Your task to perform on an android device: turn on the 24-hour format for clock Image 0: 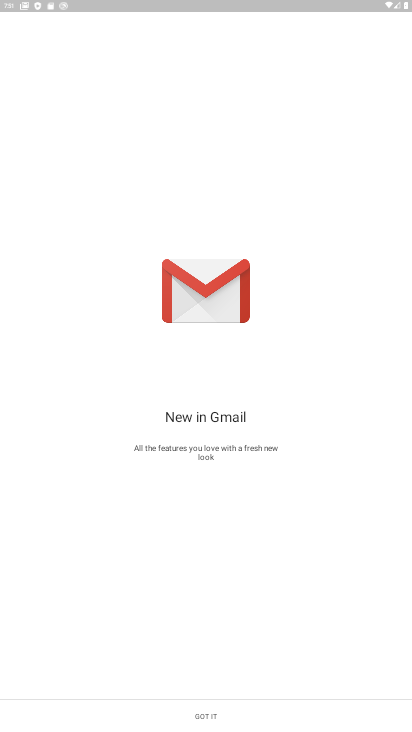
Step 0: press back button
Your task to perform on an android device: turn on the 24-hour format for clock Image 1: 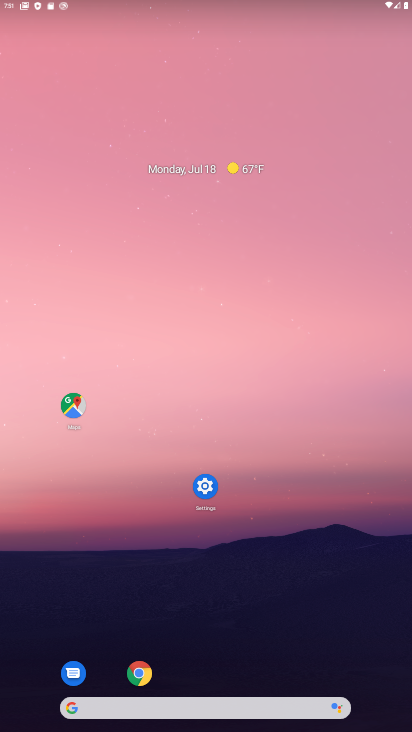
Step 1: click (180, 112)
Your task to perform on an android device: turn on the 24-hour format for clock Image 2: 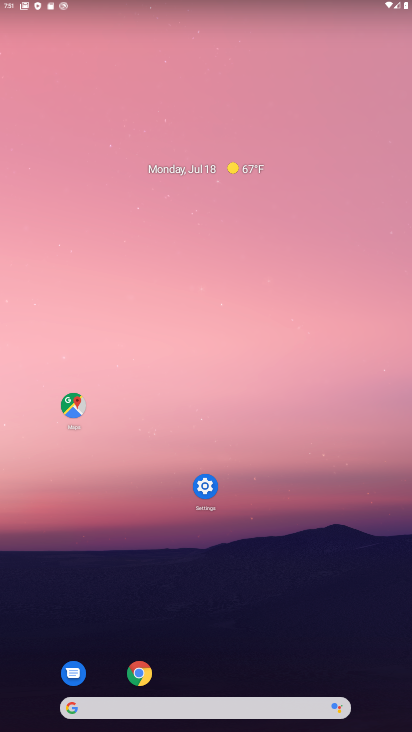
Step 2: drag from (218, 613) to (198, 126)
Your task to perform on an android device: turn on the 24-hour format for clock Image 3: 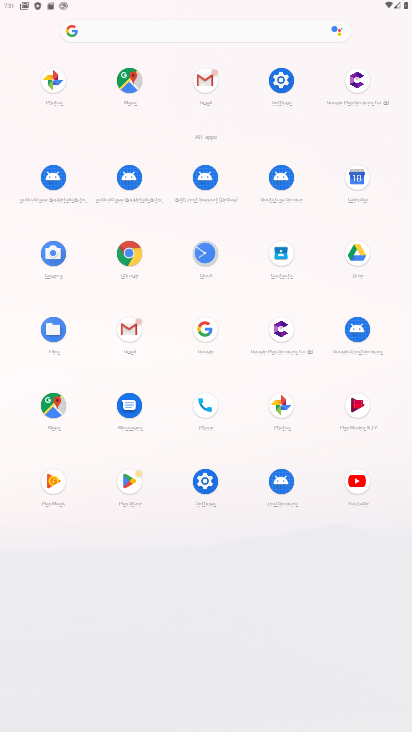
Step 3: click (207, 246)
Your task to perform on an android device: turn on the 24-hour format for clock Image 4: 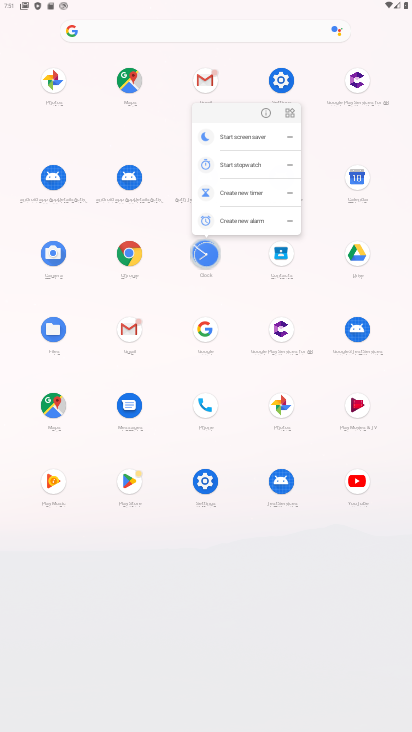
Step 4: click (207, 246)
Your task to perform on an android device: turn on the 24-hour format for clock Image 5: 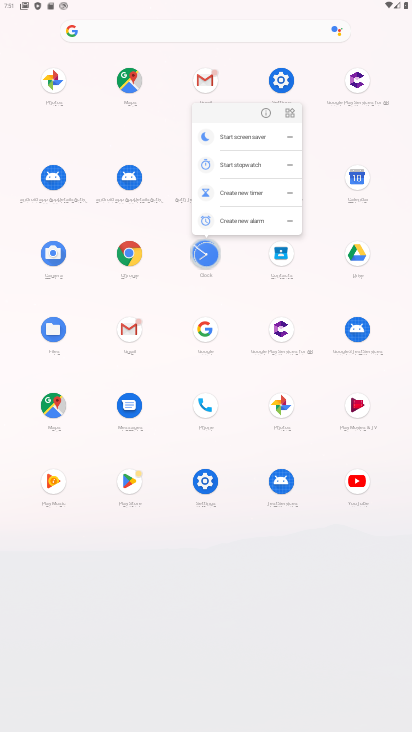
Step 5: click (207, 246)
Your task to perform on an android device: turn on the 24-hour format for clock Image 6: 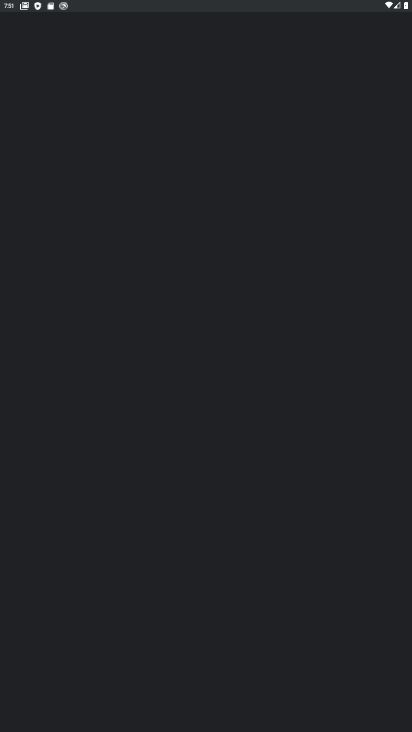
Step 6: click (207, 261)
Your task to perform on an android device: turn on the 24-hour format for clock Image 7: 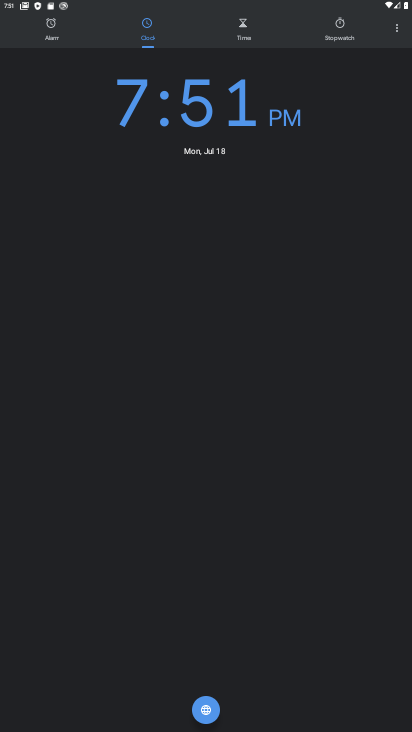
Step 7: click (396, 25)
Your task to perform on an android device: turn on the 24-hour format for clock Image 8: 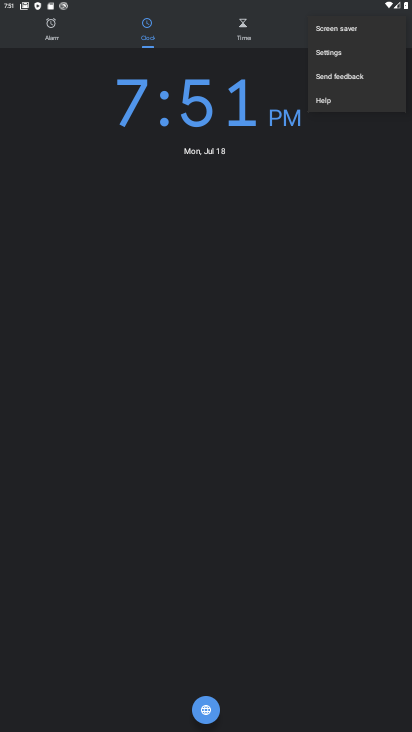
Step 8: click (332, 49)
Your task to perform on an android device: turn on the 24-hour format for clock Image 9: 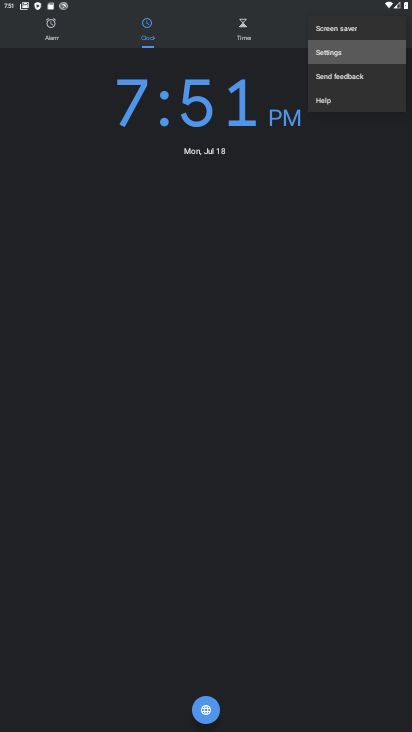
Step 9: click (316, 62)
Your task to perform on an android device: turn on the 24-hour format for clock Image 10: 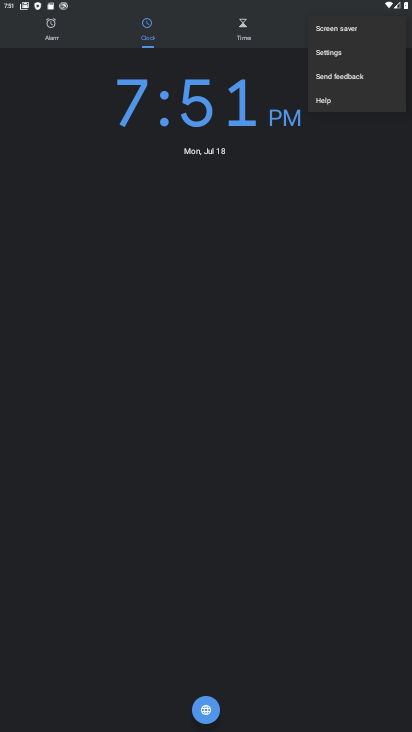
Step 10: click (316, 62)
Your task to perform on an android device: turn on the 24-hour format for clock Image 11: 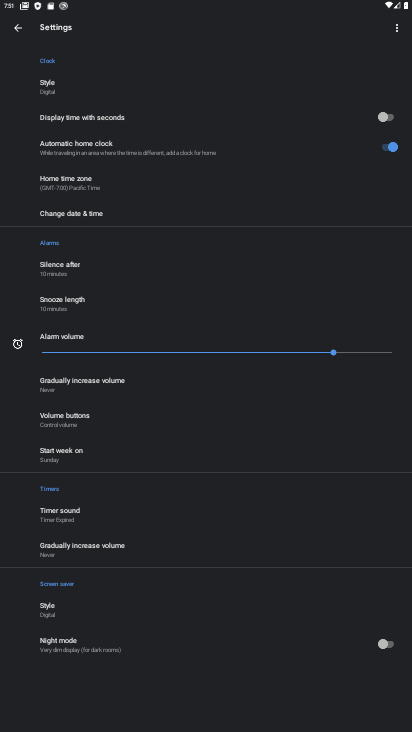
Step 11: click (71, 223)
Your task to perform on an android device: turn on the 24-hour format for clock Image 12: 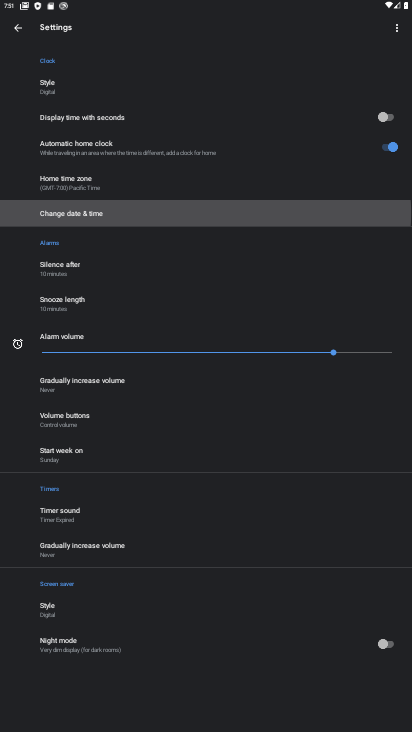
Step 12: click (71, 223)
Your task to perform on an android device: turn on the 24-hour format for clock Image 13: 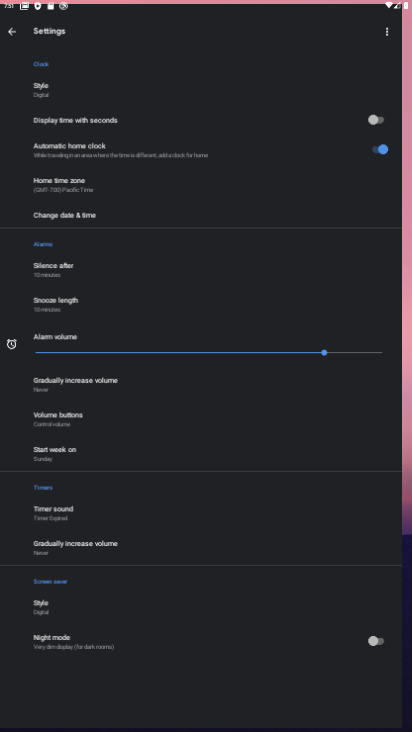
Step 13: click (71, 222)
Your task to perform on an android device: turn on the 24-hour format for clock Image 14: 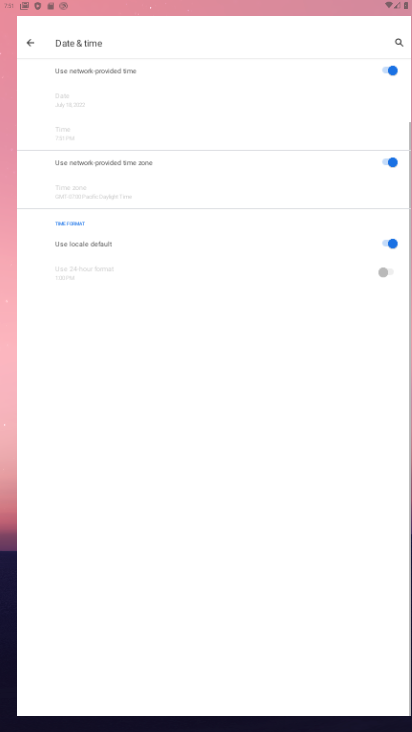
Step 14: click (71, 222)
Your task to perform on an android device: turn on the 24-hour format for clock Image 15: 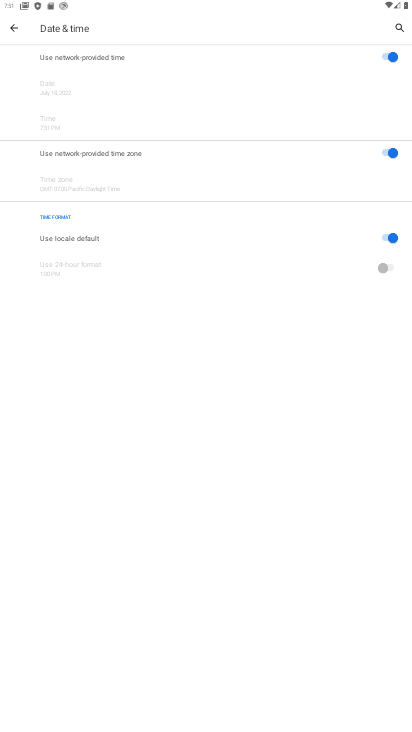
Step 15: click (392, 242)
Your task to perform on an android device: turn on the 24-hour format for clock Image 16: 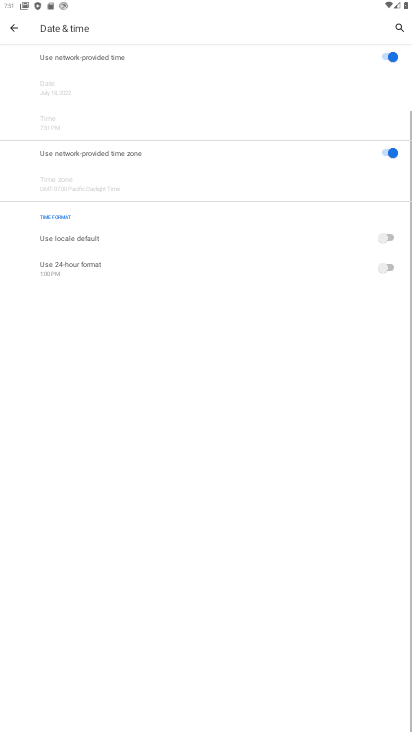
Step 16: click (387, 265)
Your task to perform on an android device: turn on the 24-hour format for clock Image 17: 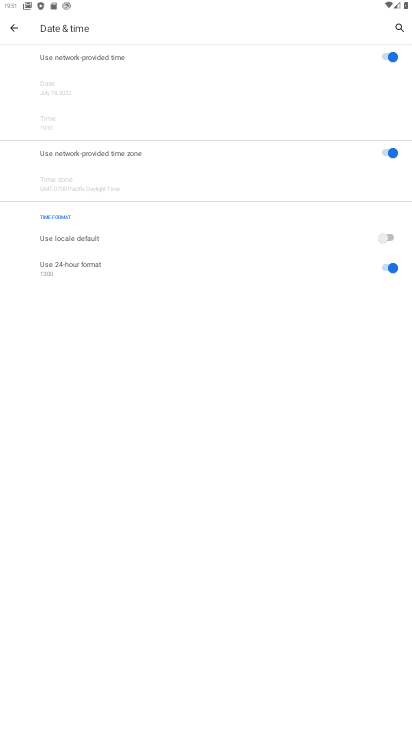
Step 17: task complete